Your task to perform on an android device: empty trash in the gmail app Image 0: 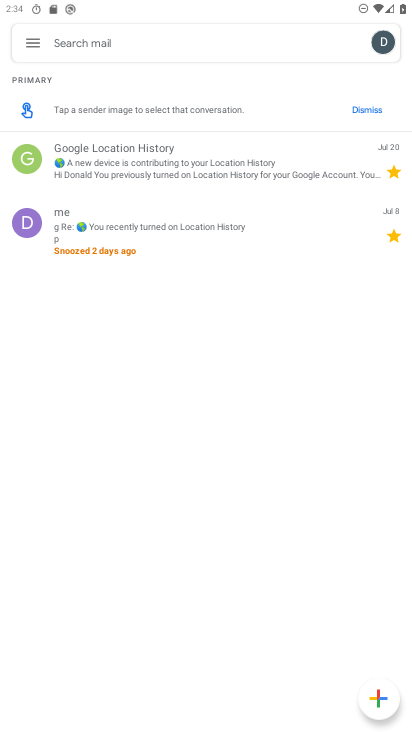
Step 0: press home button
Your task to perform on an android device: empty trash in the gmail app Image 1: 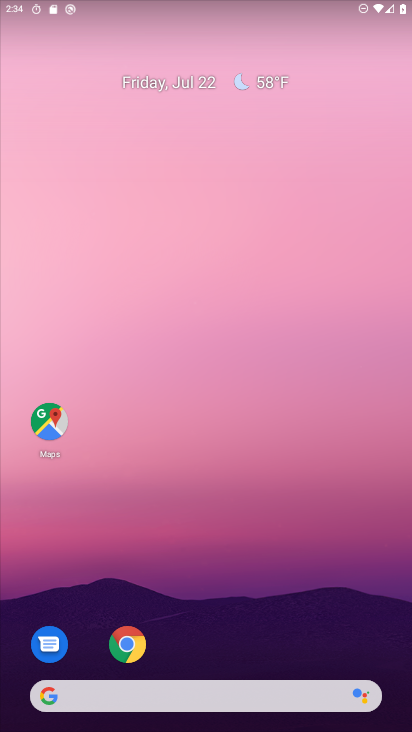
Step 1: drag from (224, 633) to (241, 152)
Your task to perform on an android device: empty trash in the gmail app Image 2: 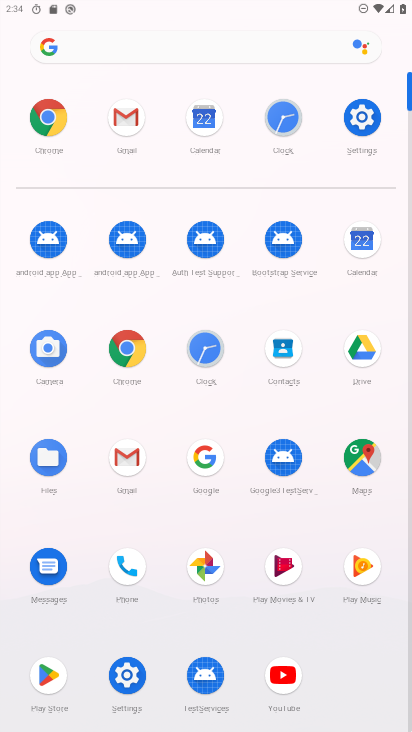
Step 2: click (124, 122)
Your task to perform on an android device: empty trash in the gmail app Image 3: 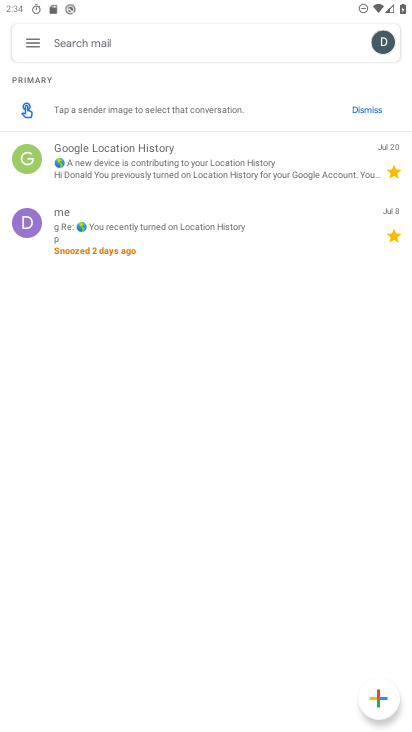
Step 3: click (28, 61)
Your task to perform on an android device: empty trash in the gmail app Image 4: 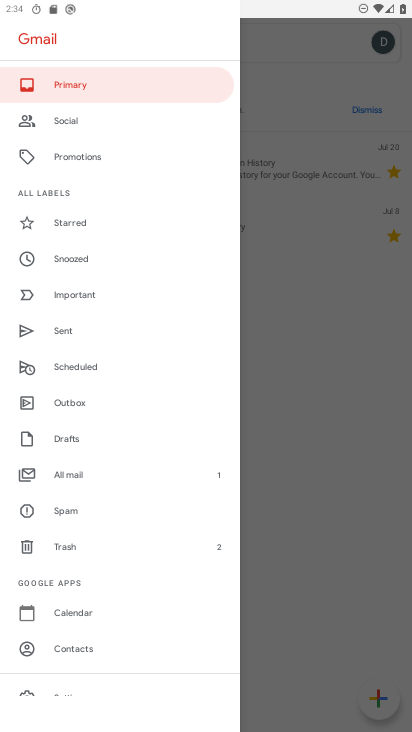
Step 4: click (72, 553)
Your task to perform on an android device: empty trash in the gmail app Image 5: 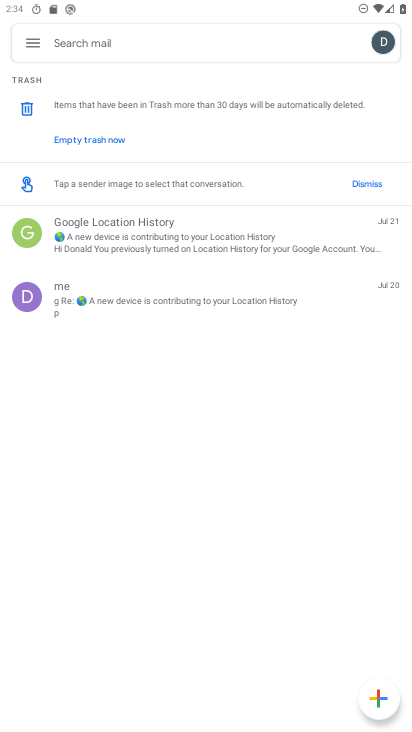
Step 5: click (37, 52)
Your task to perform on an android device: empty trash in the gmail app Image 6: 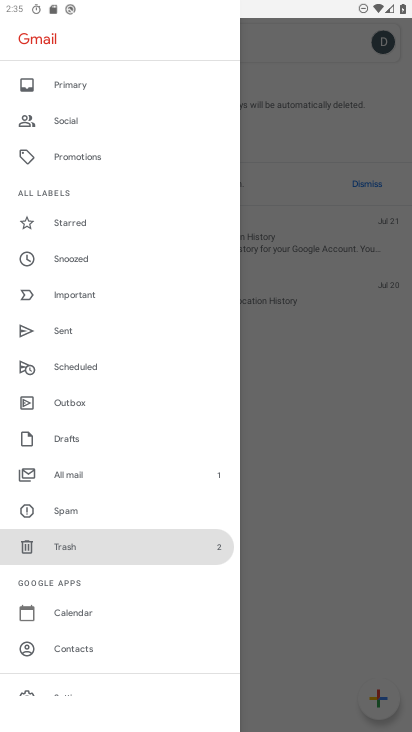
Step 6: click (60, 543)
Your task to perform on an android device: empty trash in the gmail app Image 7: 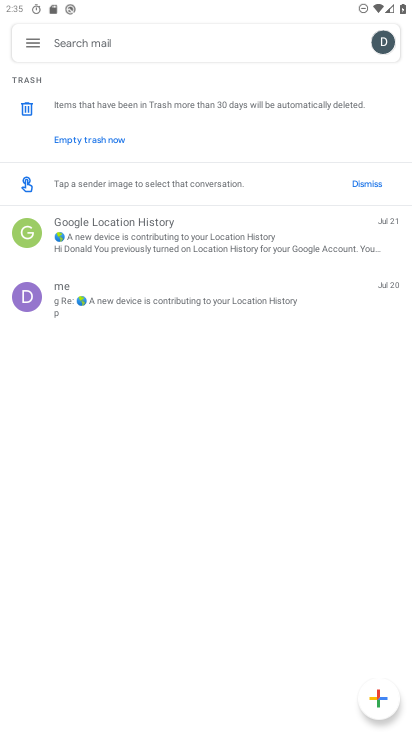
Step 7: click (114, 133)
Your task to perform on an android device: empty trash in the gmail app Image 8: 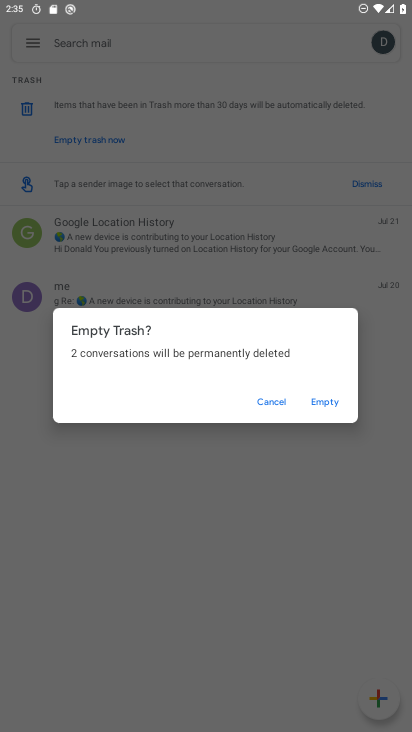
Step 8: click (327, 404)
Your task to perform on an android device: empty trash in the gmail app Image 9: 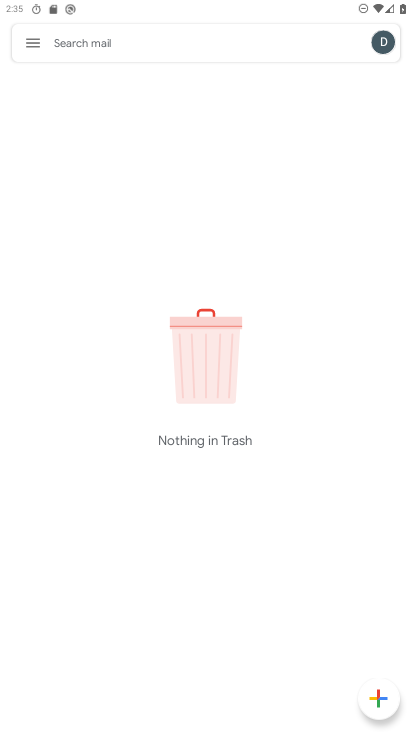
Step 9: task complete